Your task to perform on an android device: Open Chrome and go to the settings page Image 0: 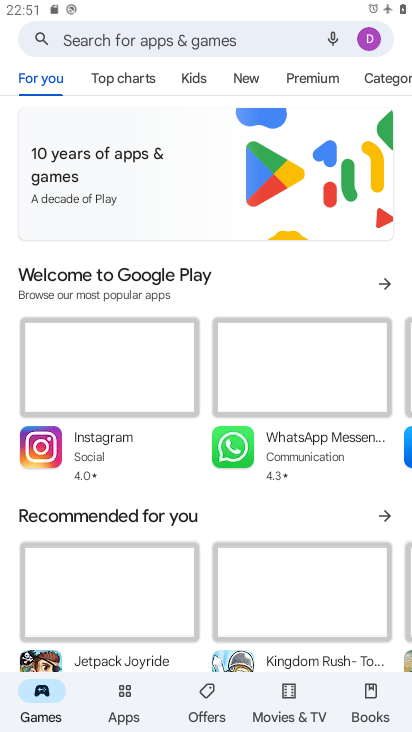
Step 0: press home button
Your task to perform on an android device: Open Chrome and go to the settings page Image 1: 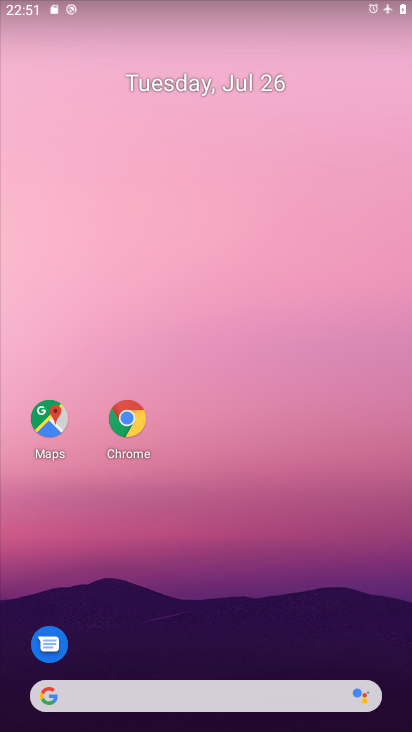
Step 1: drag from (237, 636) to (227, 242)
Your task to perform on an android device: Open Chrome and go to the settings page Image 2: 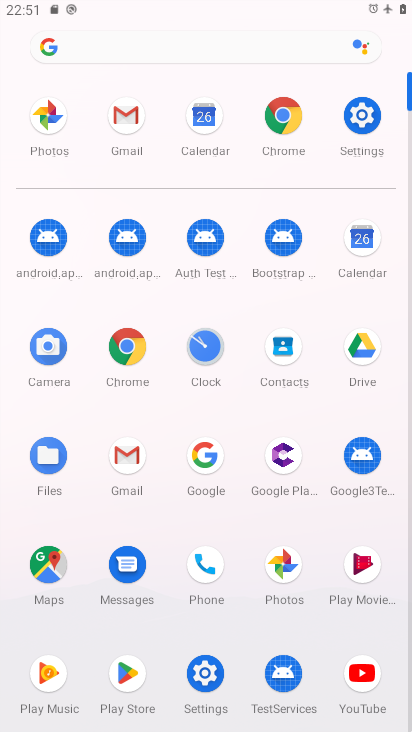
Step 2: click (281, 117)
Your task to perform on an android device: Open Chrome and go to the settings page Image 3: 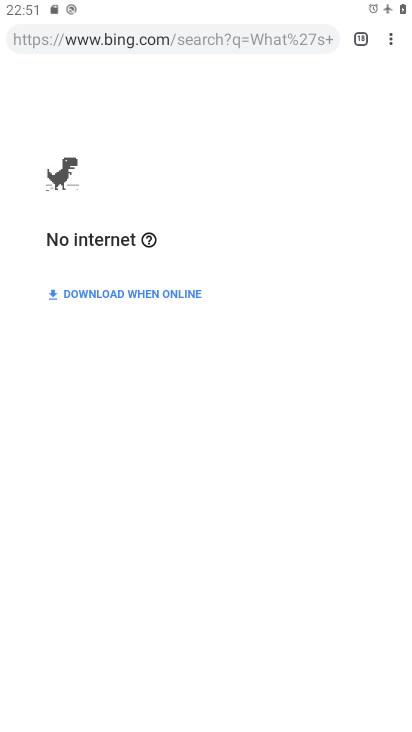
Step 3: click (394, 48)
Your task to perform on an android device: Open Chrome and go to the settings page Image 4: 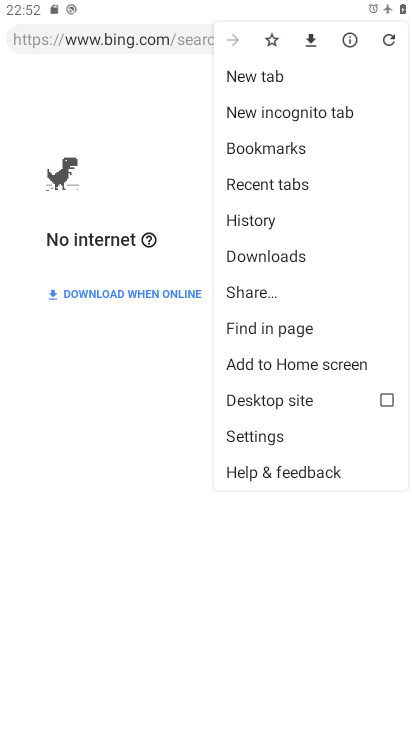
Step 4: click (239, 440)
Your task to perform on an android device: Open Chrome and go to the settings page Image 5: 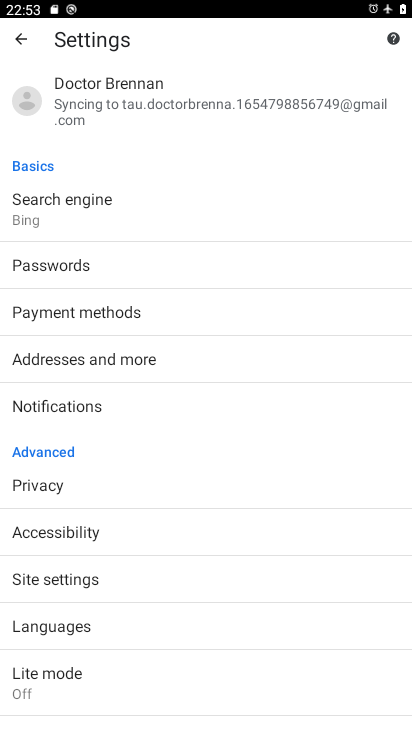
Step 5: task complete